Your task to perform on an android device: turn on notifications settings in the gmail app Image 0: 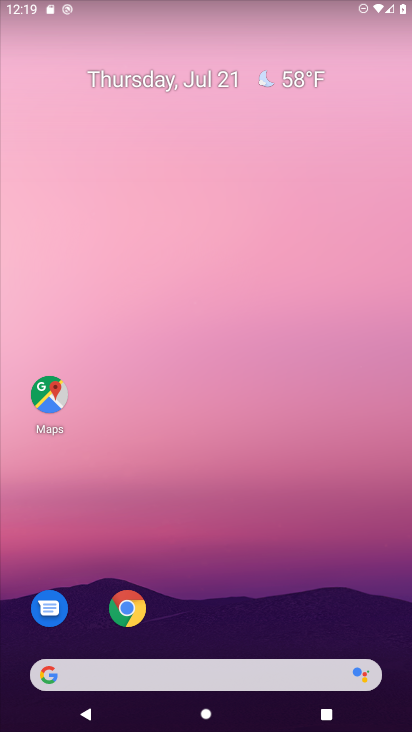
Step 0: press home button
Your task to perform on an android device: turn on notifications settings in the gmail app Image 1: 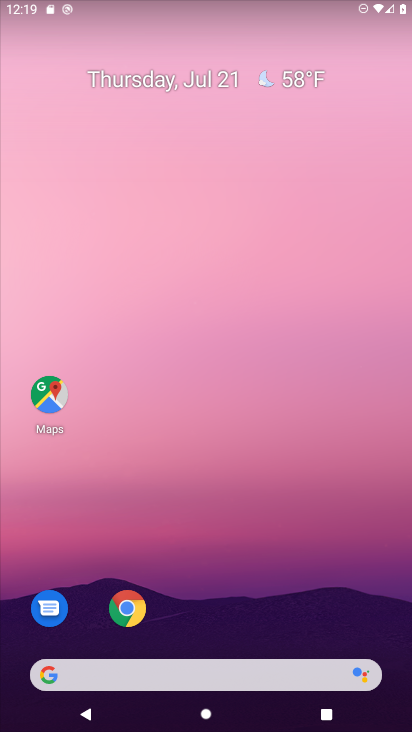
Step 1: drag from (301, 617) to (327, 100)
Your task to perform on an android device: turn on notifications settings in the gmail app Image 2: 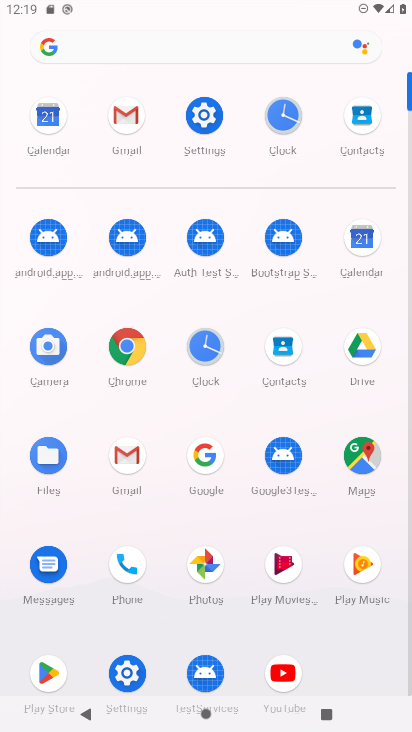
Step 2: click (208, 103)
Your task to perform on an android device: turn on notifications settings in the gmail app Image 3: 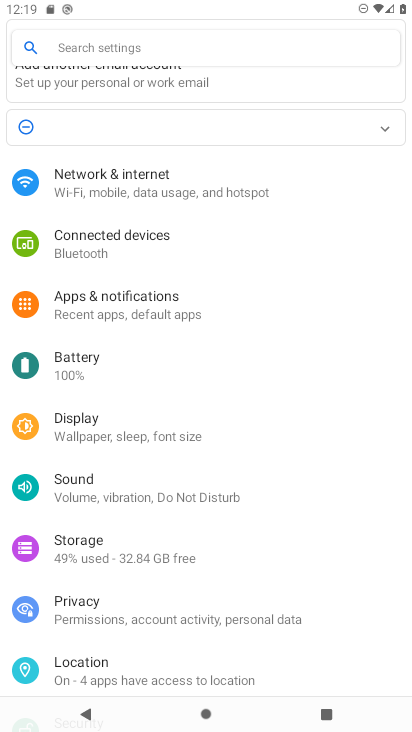
Step 3: click (128, 309)
Your task to perform on an android device: turn on notifications settings in the gmail app Image 4: 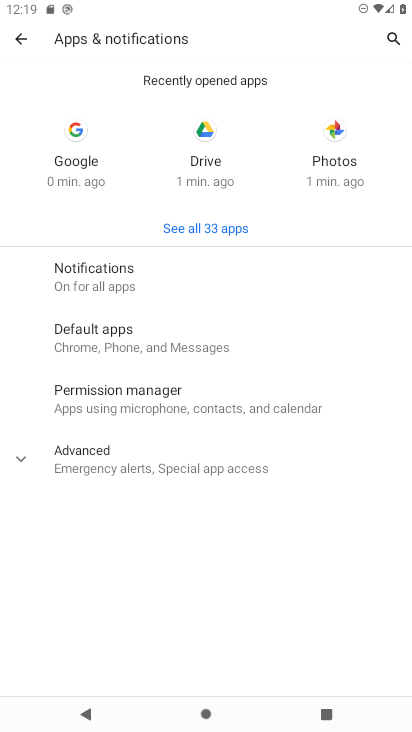
Step 4: click (131, 280)
Your task to perform on an android device: turn on notifications settings in the gmail app Image 5: 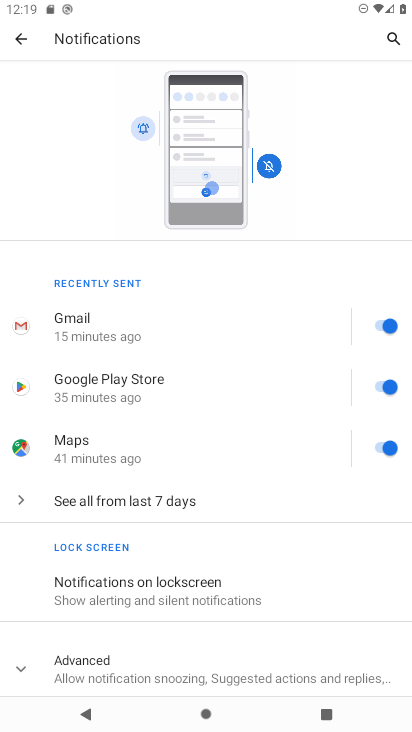
Step 5: click (148, 131)
Your task to perform on an android device: turn on notifications settings in the gmail app Image 6: 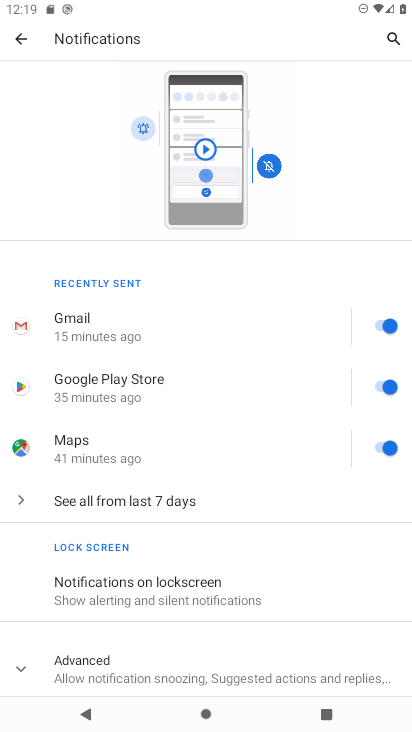
Step 6: click (277, 166)
Your task to perform on an android device: turn on notifications settings in the gmail app Image 7: 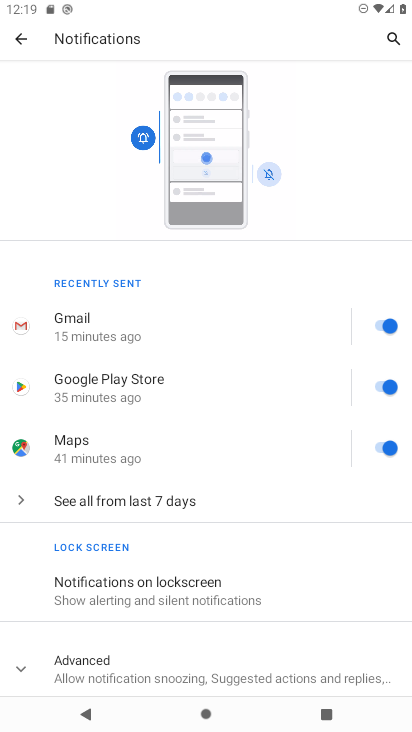
Step 7: task complete